Your task to perform on an android device: Search for the best rated mechanical keyboard on Amazon. Image 0: 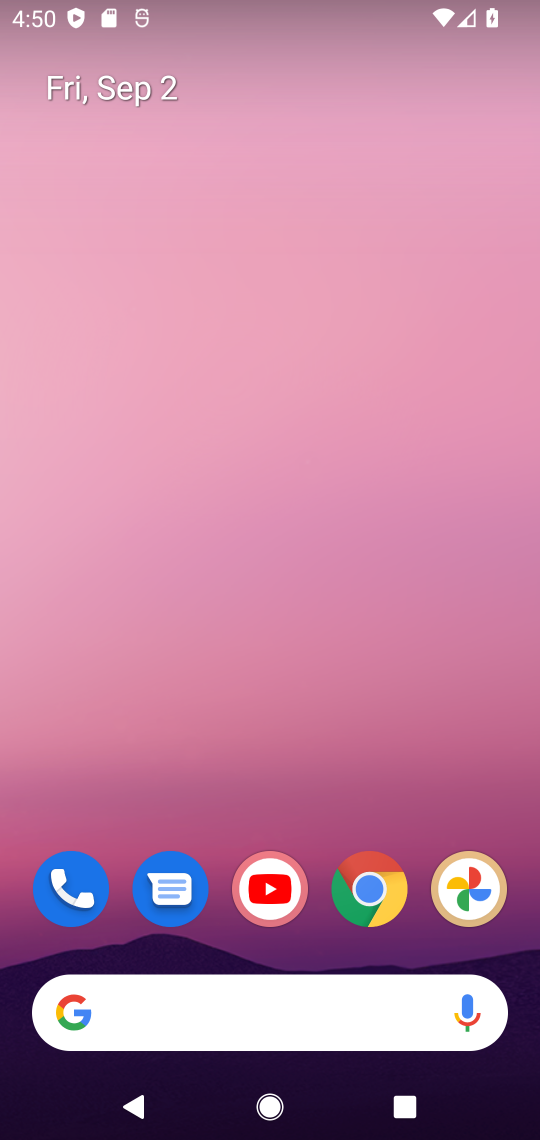
Step 0: click (249, 1025)
Your task to perform on an android device: Search for the best rated mechanical keyboard on Amazon. Image 1: 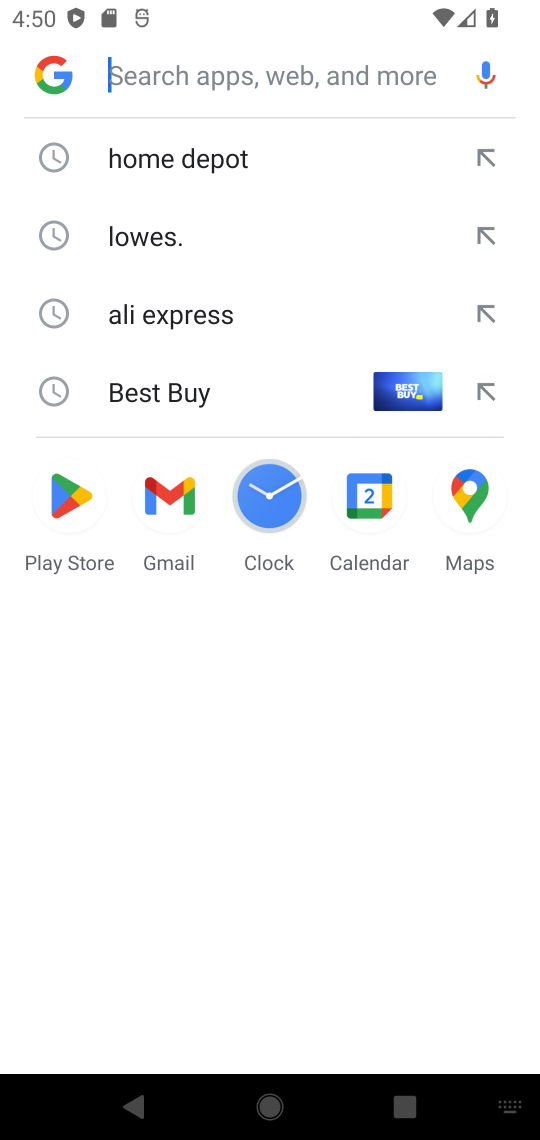
Step 1: type "Amazon"
Your task to perform on an android device: Search for the best rated mechanical keyboard on Amazon. Image 2: 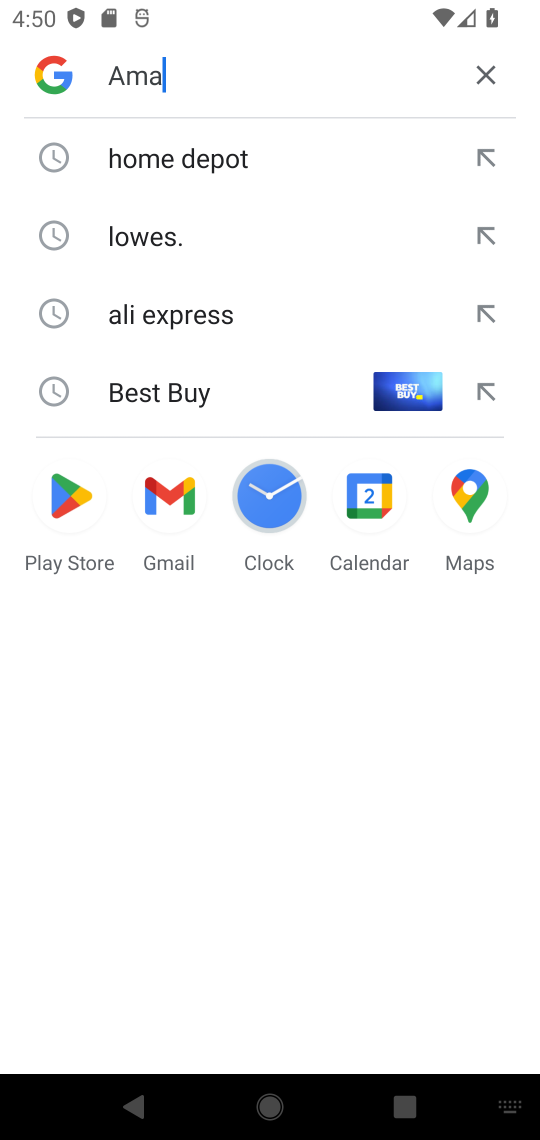
Step 2: type ""
Your task to perform on an android device: Search for the best rated mechanical keyboard on Amazon. Image 3: 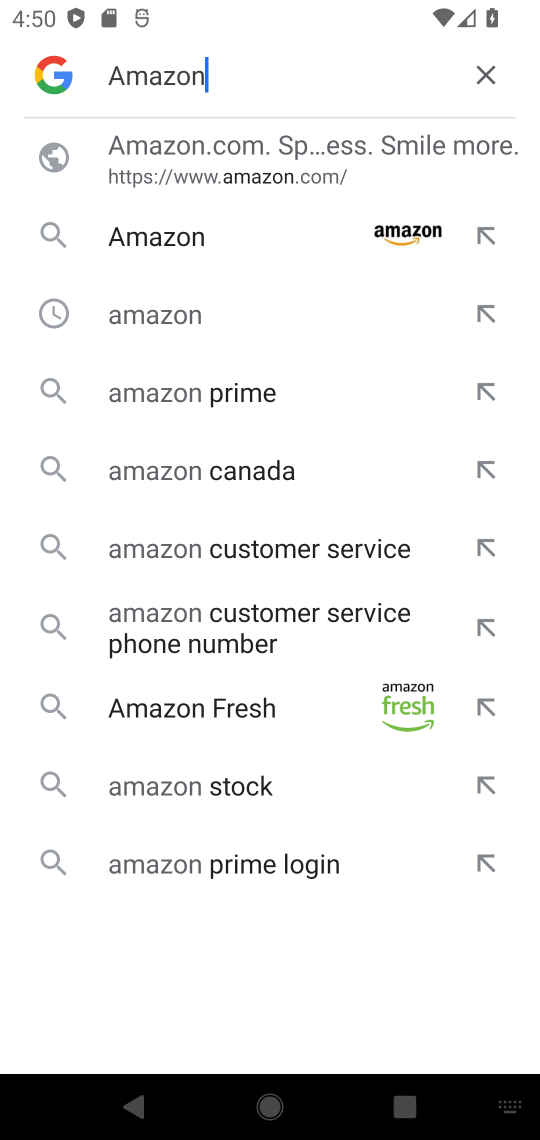
Step 3: click (165, 234)
Your task to perform on an android device: Search for the best rated mechanical keyboard on Amazon. Image 4: 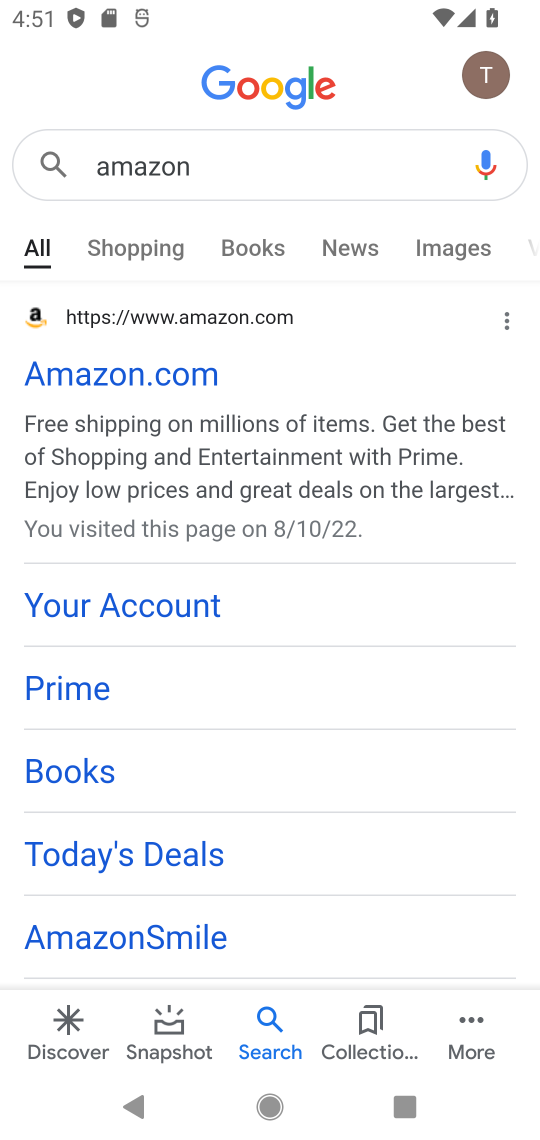
Step 4: click (202, 375)
Your task to perform on an android device: Search for the best rated mechanical keyboard on Amazon. Image 5: 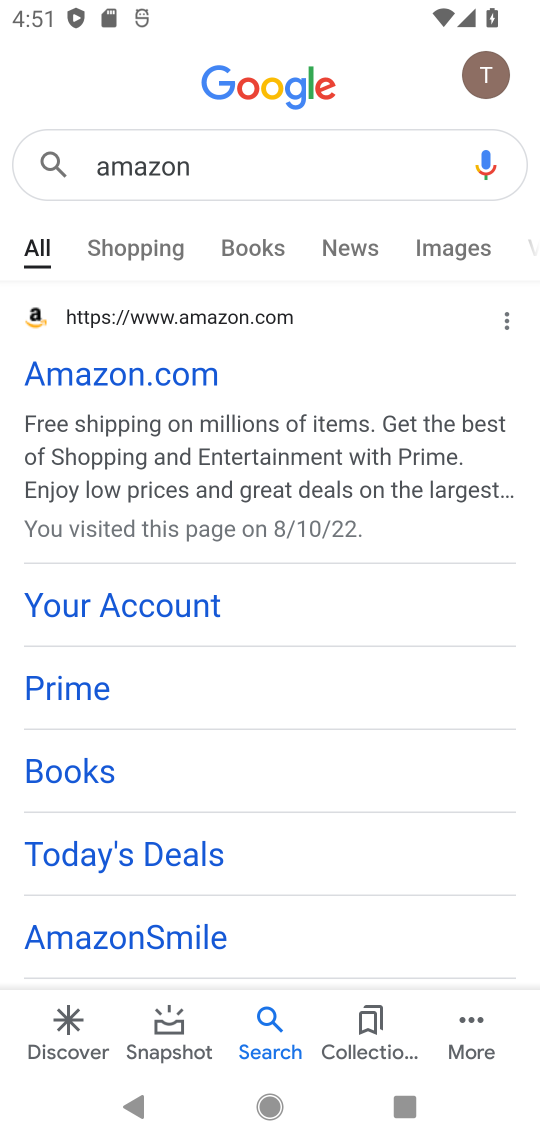
Step 5: click (130, 377)
Your task to perform on an android device: Search for the best rated mechanical keyboard on Amazon. Image 6: 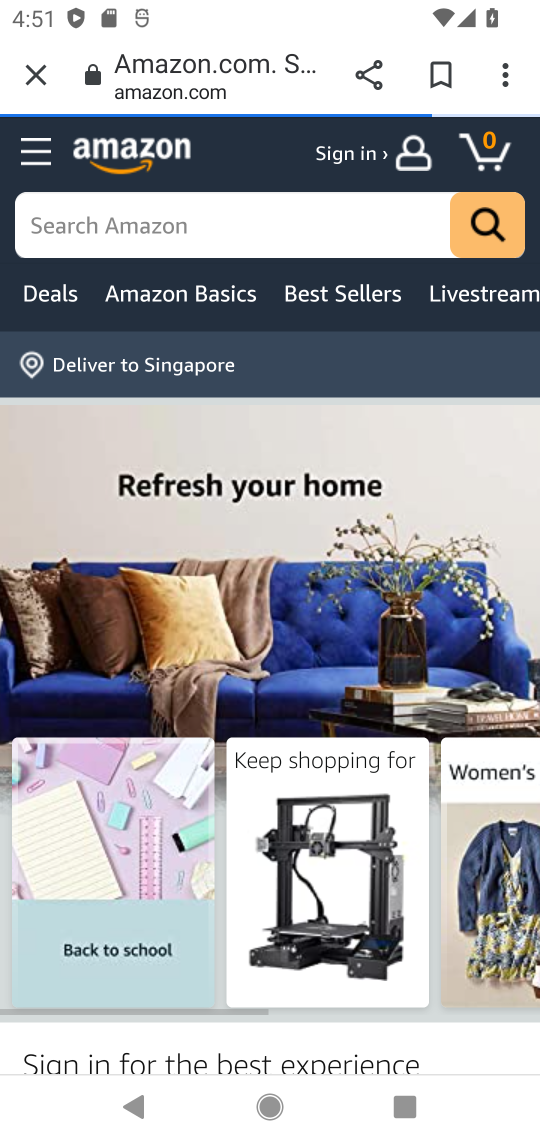
Step 6: click (336, 233)
Your task to perform on an android device: Search for the best rated mechanical keyboard on Amazon. Image 7: 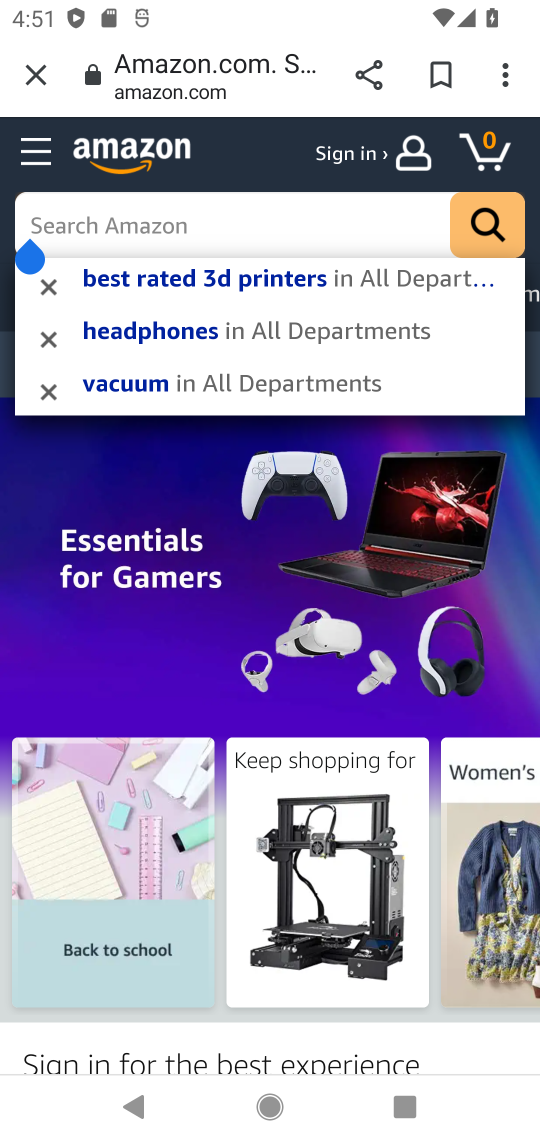
Step 7: type "mechanical keyboard"
Your task to perform on an android device: Search for the best rated mechanical keyboard on Amazon. Image 8: 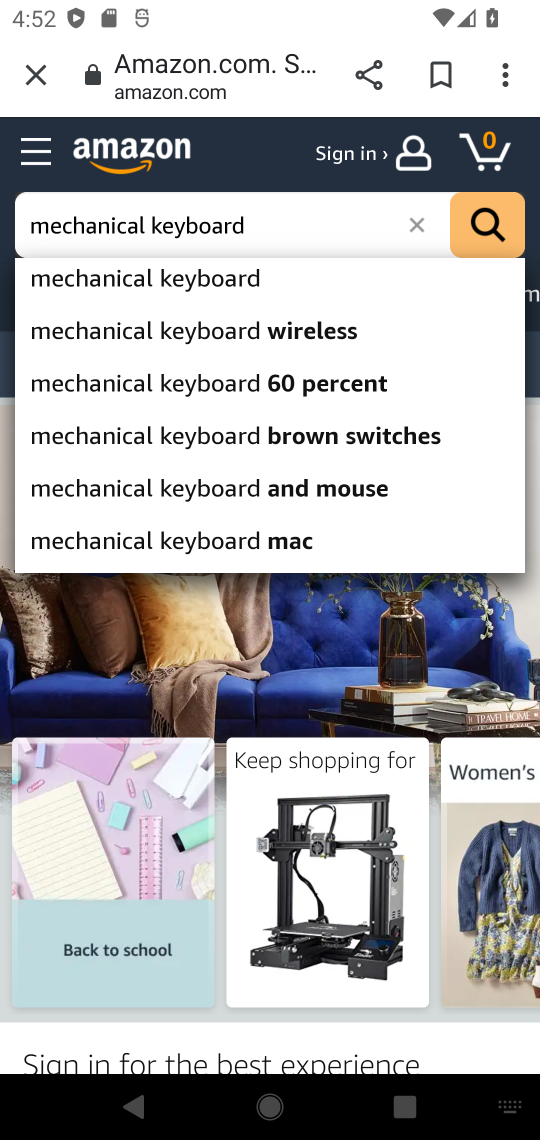
Step 8: click (266, 276)
Your task to perform on an android device: Search for the best rated mechanical keyboard on Amazon. Image 9: 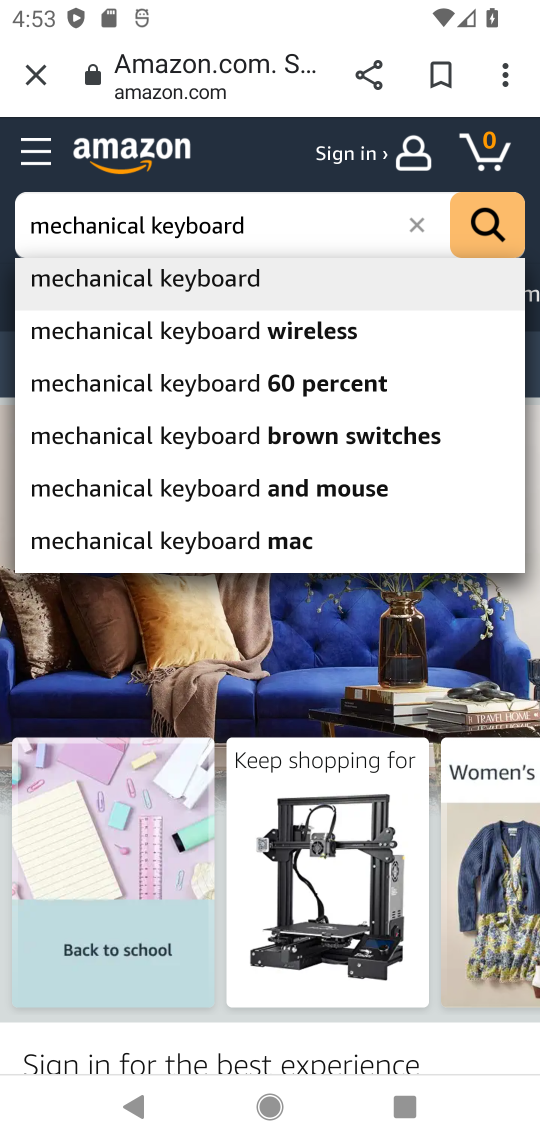
Step 9: click (274, 292)
Your task to perform on an android device: Search for the best rated mechanical keyboard on Amazon. Image 10: 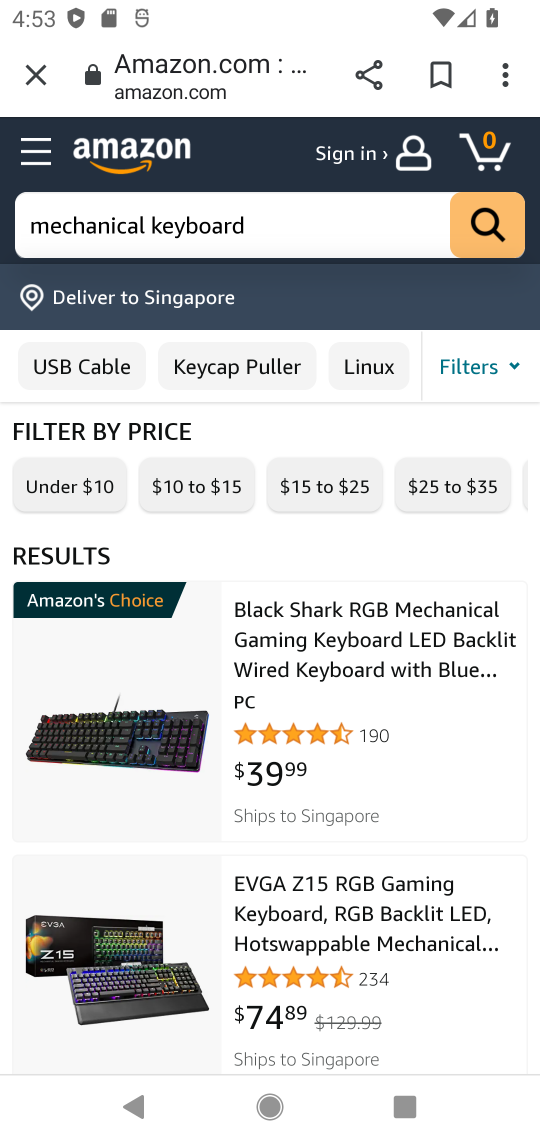
Step 10: task complete